Your task to perform on an android device: What's on my calendar for the rest of the week? Image 0: 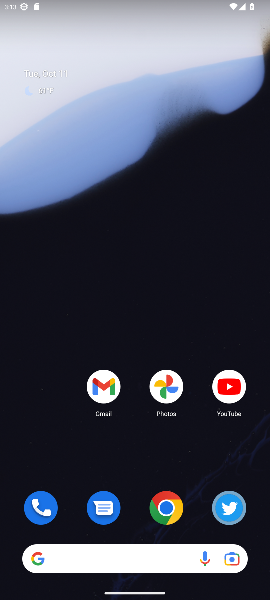
Step 0: drag from (154, 477) to (115, 327)
Your task to perform on an android device: What's on my calendar for the rest of the week? Image 1: 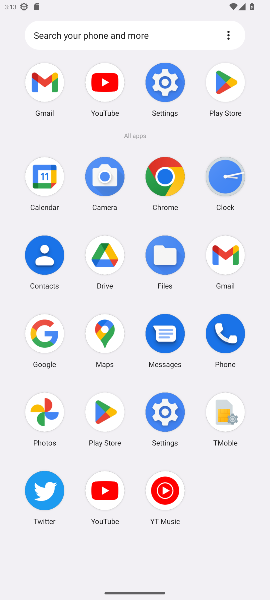
Step 1: click (46, 179)
Your task to perform on an android device: What's on my calendar for the rest of the week? Image 2: 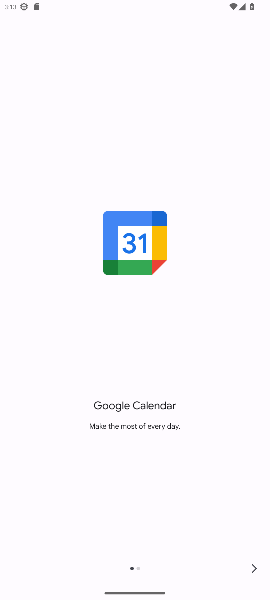
Step 2: click (256, 570)
Your task to perform on an android device: What's on my calendar for the rest of the week? Image 3: 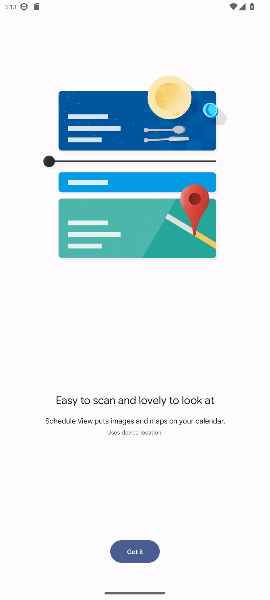
Step 3: click (256, 570)
Your task to perform on an android device: What's on my calendar for the rest of the week? Image 4: 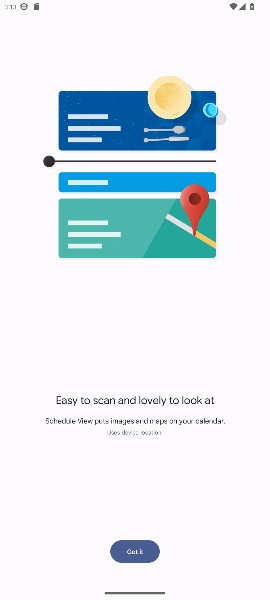
Step 4: click (138, 553)
Your task to perform on an android device: What's on my calendar for the rest of the week? Image 5: 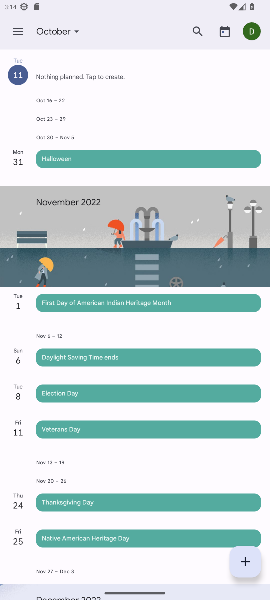
Step 5: task complete